Your task to perform on an android device: Check the news Image 0: 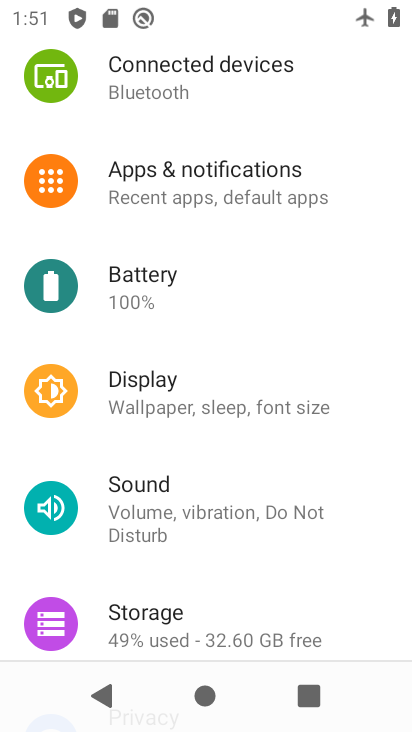
Step 0: press home button
Your task to perform on an android device: Check the news Image 1: 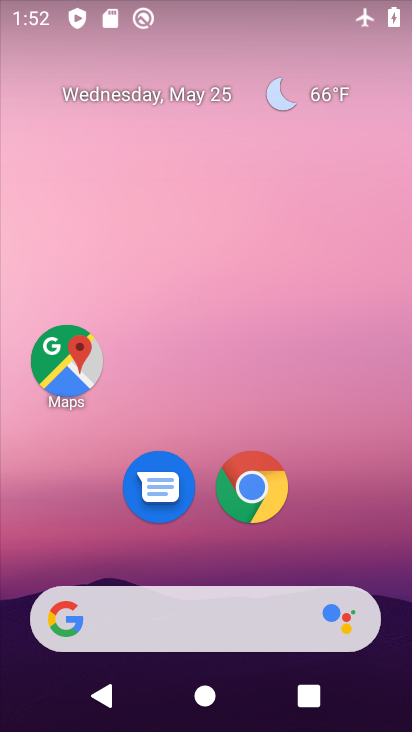
Step 1: drag from (273, 564) to (218, 195)
Your task to perform on an android device: Check the news Image 2: 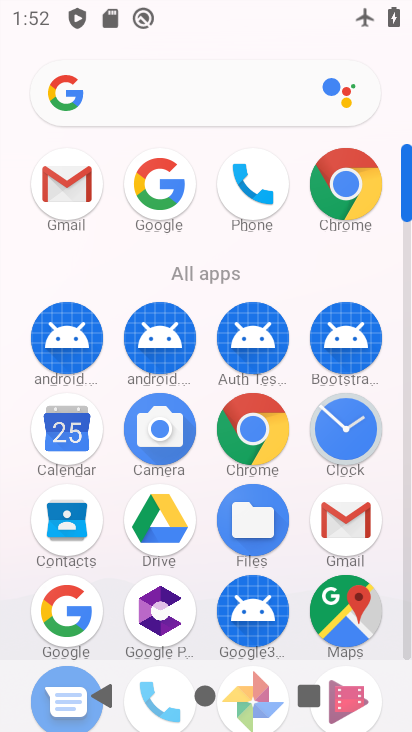
Step 2: drag from (284, 581) to (247, 281)
Your task to perform on an android device: Check the news Image 3: 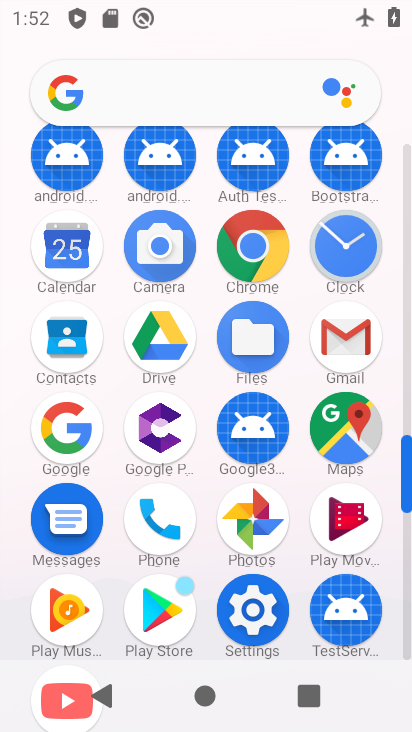
Step 3: click (85, 428)
Your task to perform on an android device: Check the news Image 4: 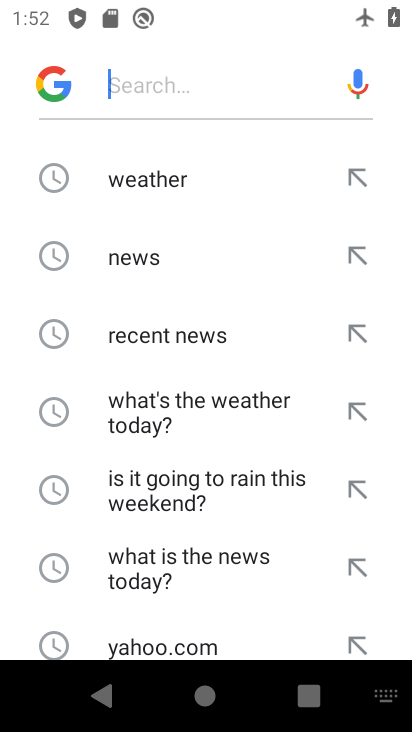
Step 4: click (164, 260)
Your task to perform on an android device: Check the news Image 5: 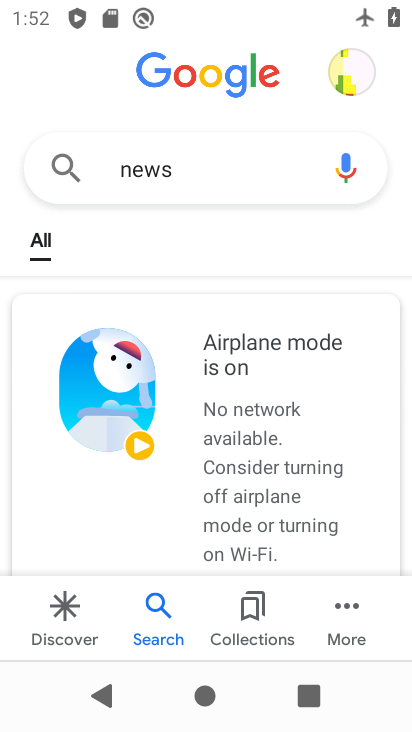
Step 5: task complete